Your task to perform on an android device: open chrome privacy settings Image 0: 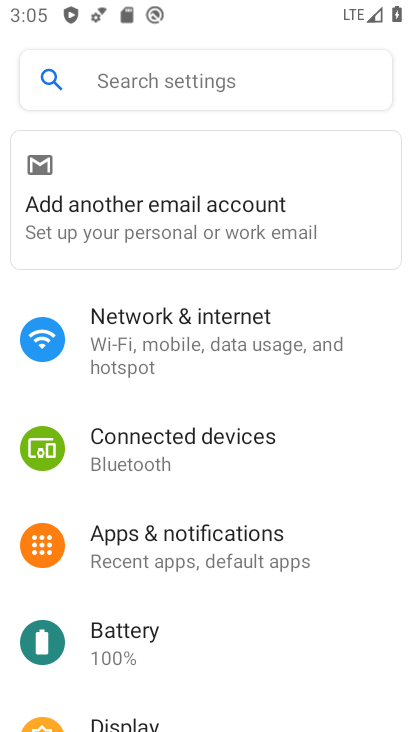
Step 0: press home button
Your task to perform on an android device: open chrome privacy settings Image 1: 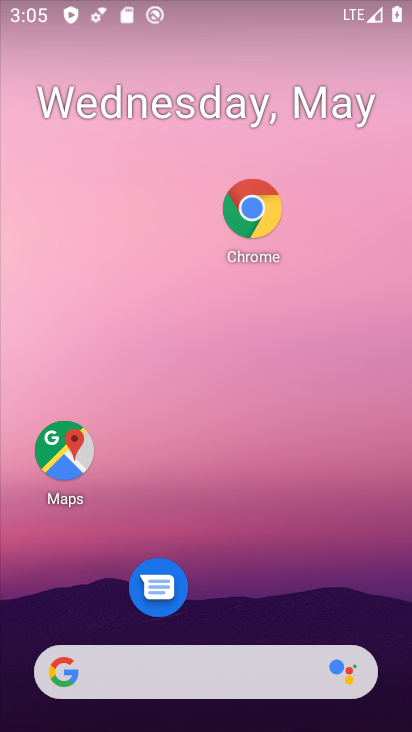
Step 1: click (238, 209)
Your task to perform on an android device: open chrome privacy settings Image 2: 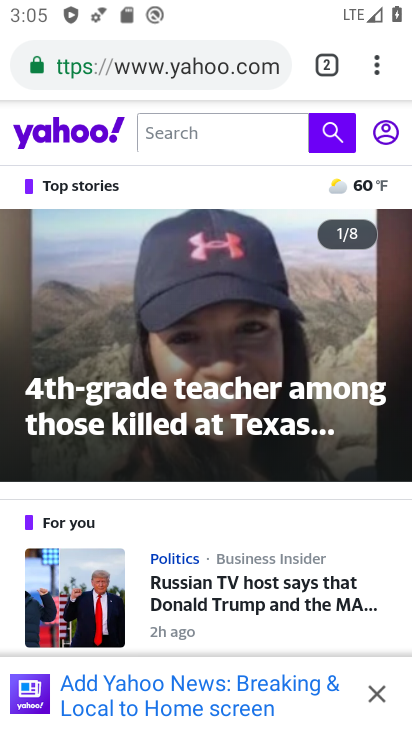
Step 2: click (389, 65)
Your task to perform on an android device: open chrome privacy settings Image 3: 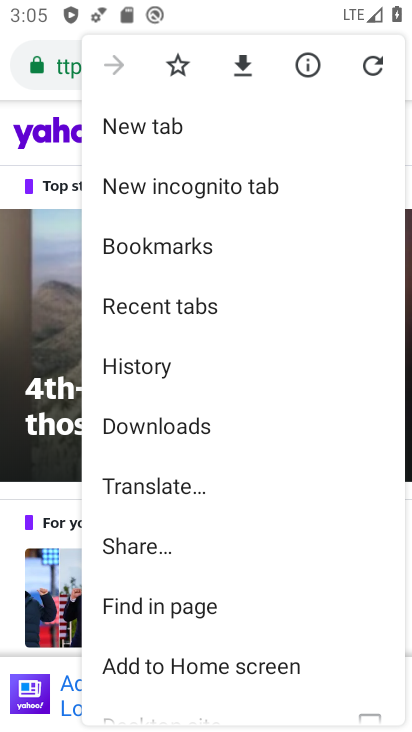
Step 3: drag from (136, 677) to (202, 264)
Your task to perform on an android device: open chrome privacy settings Image 4: 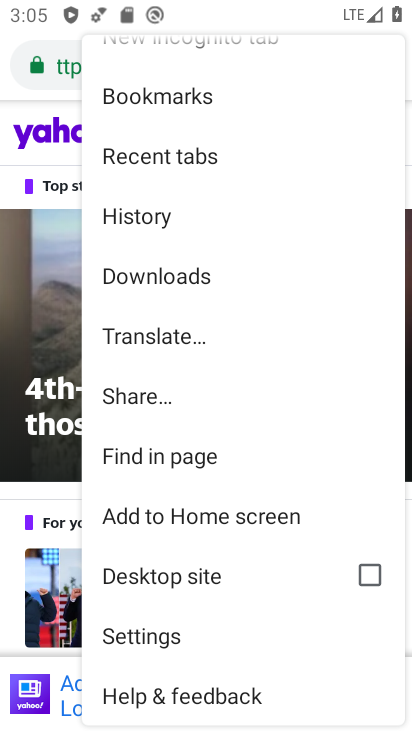
Step 4: click (194, 634)
Your task to perform on an android device: open chrome privacy settings Image 5: 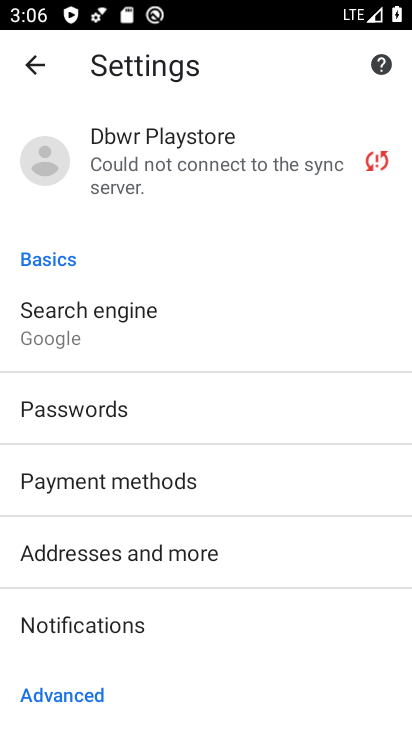
Step 5: drag from (85, 625) to (107, 301)
Your task to perform on an android device: open chrome privacy settings Image 6: 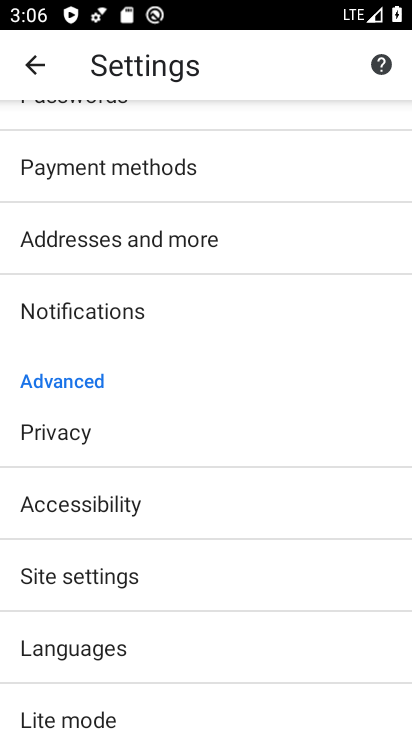
Step 6: click (110, 453)
Your task to perform on an android device: open chrome privacy settings Image 7: 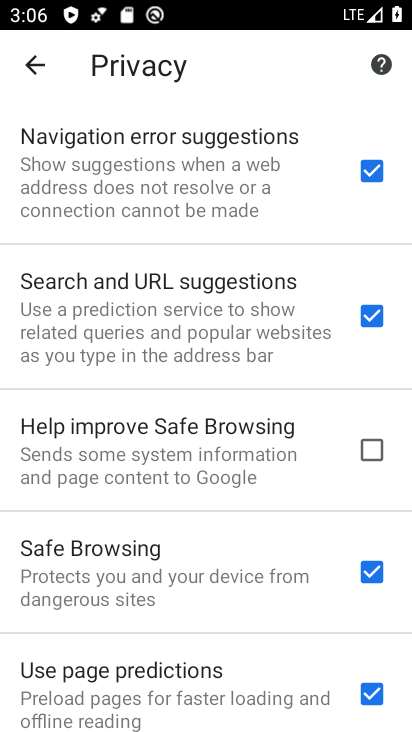
Step 7: task complete